Your task to perform on an android device: turn vacation reply on in the gmail app Image 0: 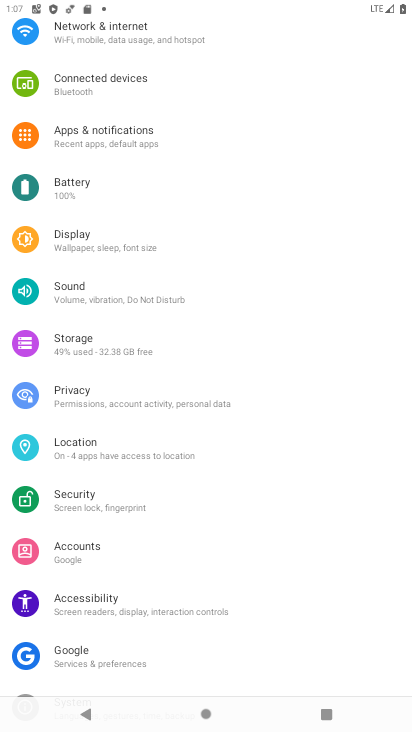
Step 0: press home button
Your task to perform on an android device: turn vacation reply on in the gmail app Image 1: 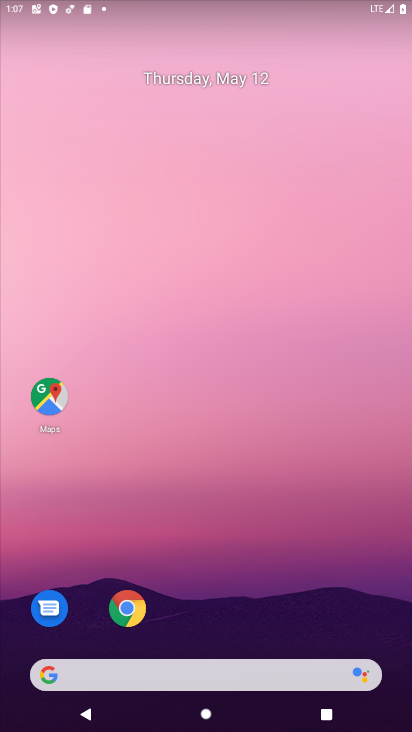
Step 1: drag from (292, 619) to (295, 5)
Your task to perform on an android device: turn vacation reply on in the gmail app Image 2: 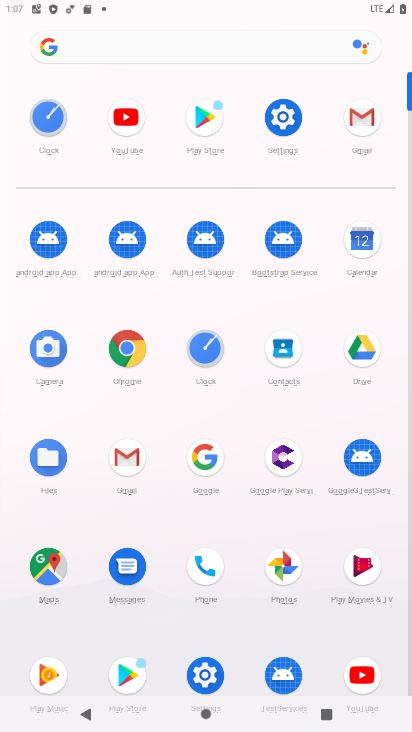
Step 2: click (365, 112)
Your task to perform on an android device: turn vacation reply on in the gmail app Image 3: 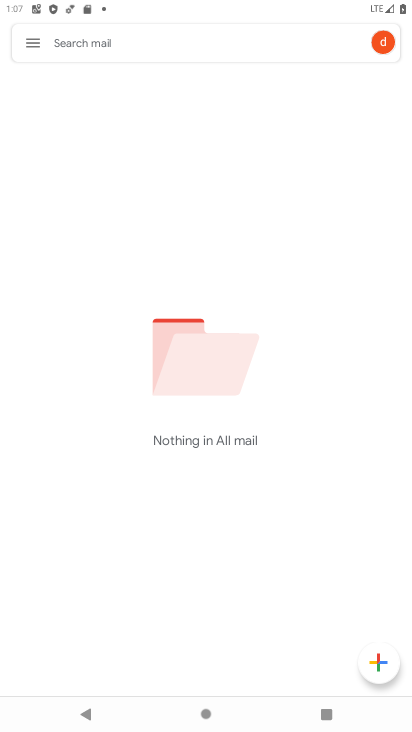
Step 3: click (37, 40)
Your task to perform on an android device: turn vacation reply on in the gmail app Image 4: 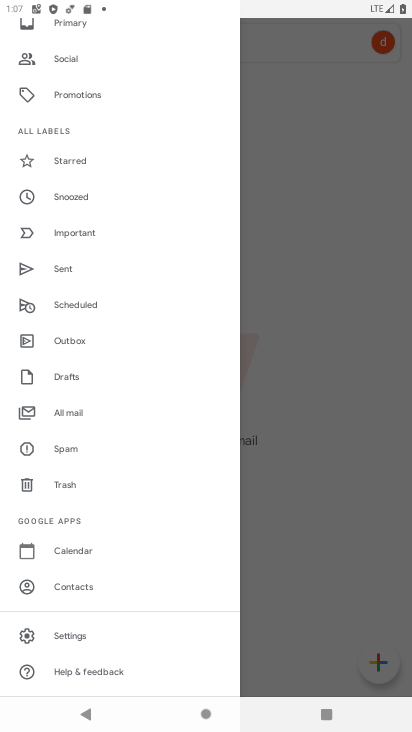
Step 4: click (55, 638)
Your task to perform on an android device: turn vacation reply on in the gmail app Image 5: 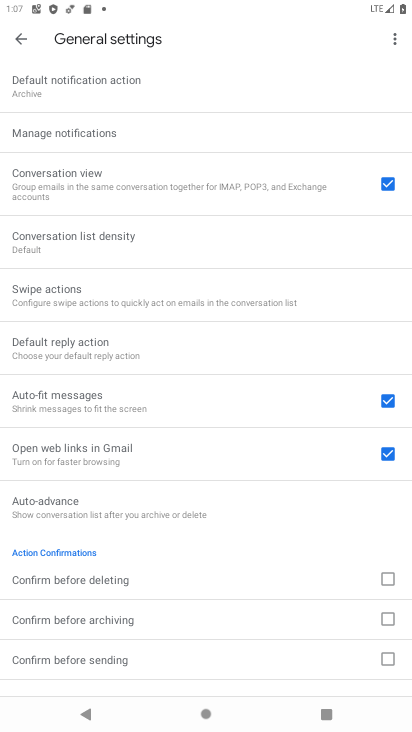
Step 5: click (21, 40)
Your task to perform on an android device: turn vacation reply on in the gmail app Image 6: 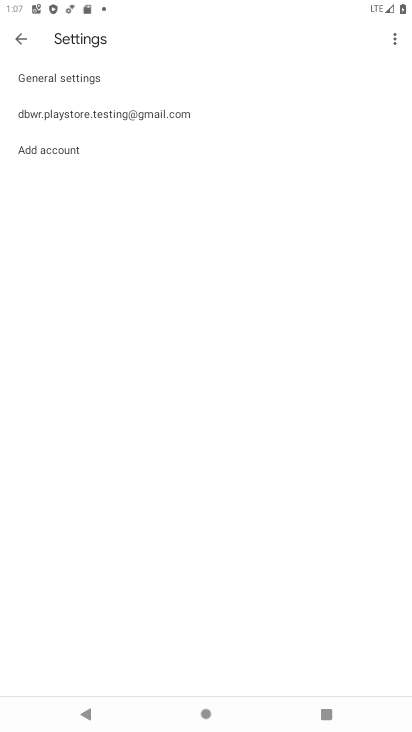
Step 6: click (76, 117)
Your task to perform on an android device: turn vacation reply on in the gmail app Image 7: 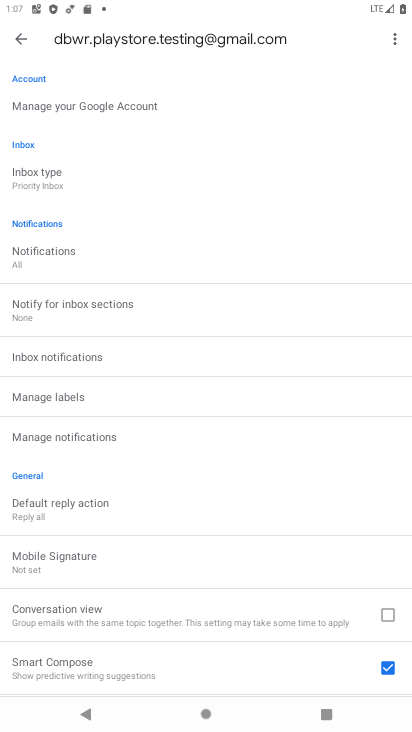
Step 7: drag from (102, 520) to (122, 234)
Your task to perform on an android device: turn vacation reply on in the gmail app Image 8: 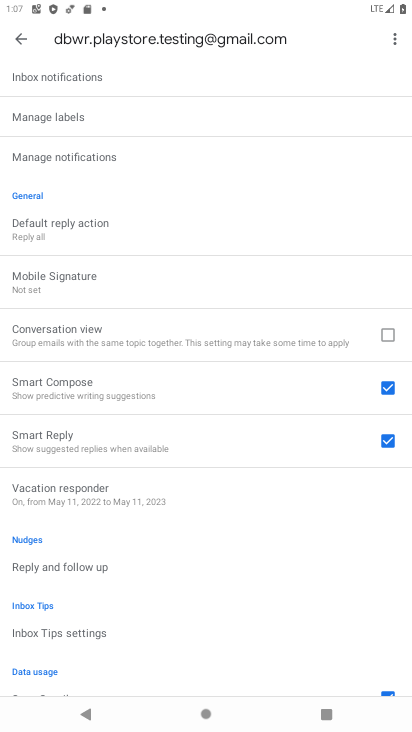
Step 8: click (62, 491)
Your task to perform on an android device: turn vacation reply on in the gmail app Image 9: 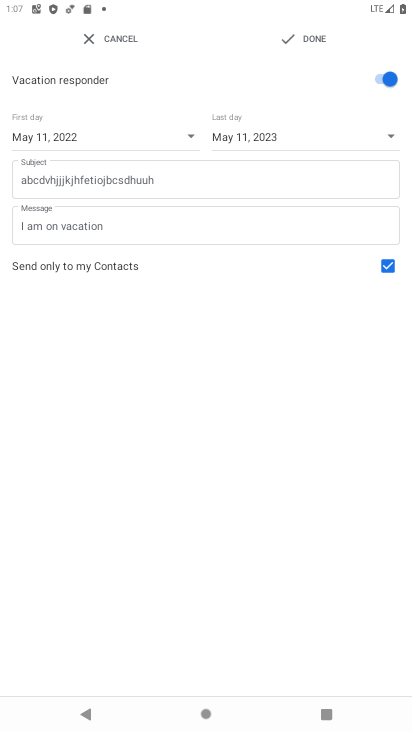
Step 9: click (313, 42)
Your task to perform on an android device: turn vacation reply on in the gmail app Image 10: 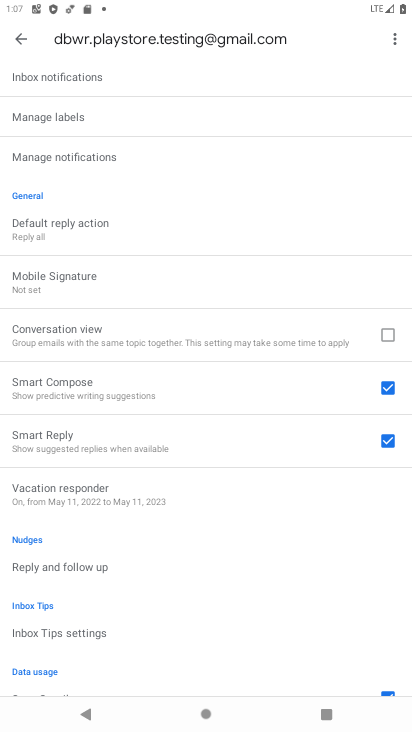
Step 10: task complete